Your task to perform on an android device: add a contact Image 0: 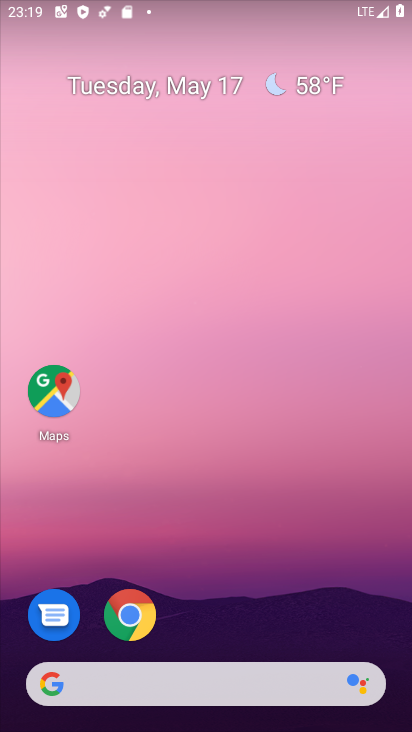
Step 0: drag from (210, 637) to (203, 234)
Your task to perform on an android device: add a contact Image 1: 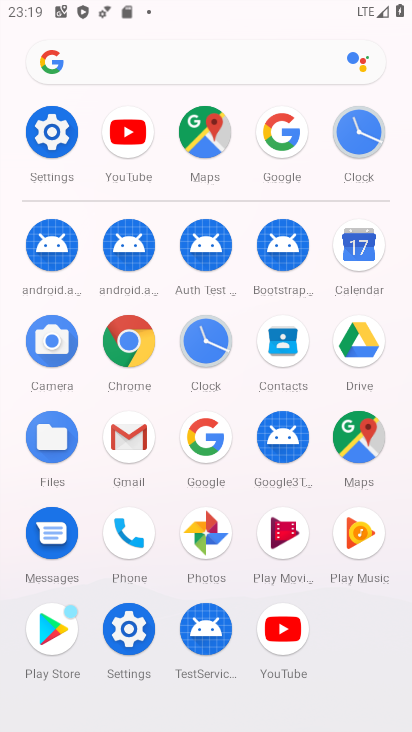
Step 1: click (278, 343)
Your task to perform on an android device: add a contact Image 2: 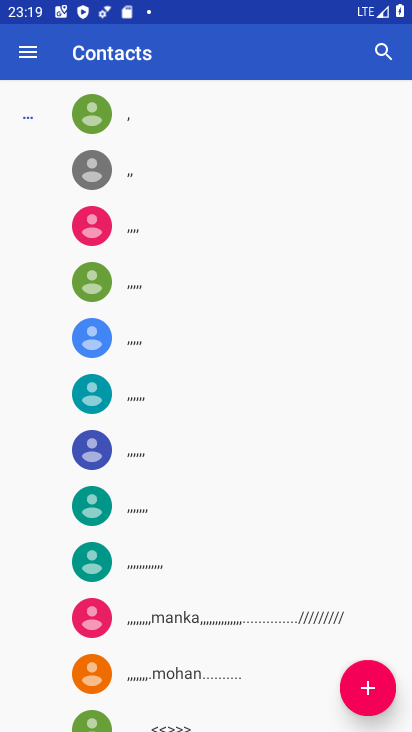
Step 2: click (362, 674)
Your task to perform on an android device: add a contact Image 3: 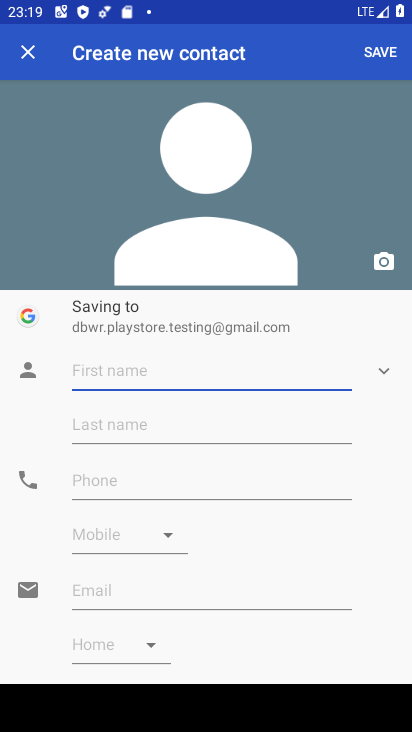
Step 3: type "hf,jhj"
Your task to perform on an android device: add a contact Image 4: 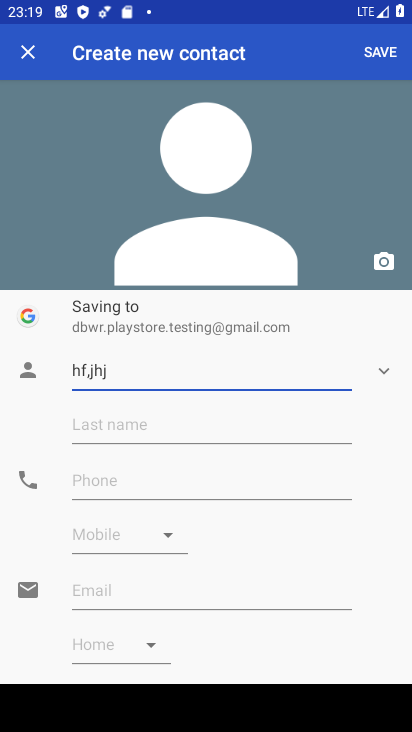
Step 4: click (159, 479)
Your task to perform on an android device: add a contact Image 5: 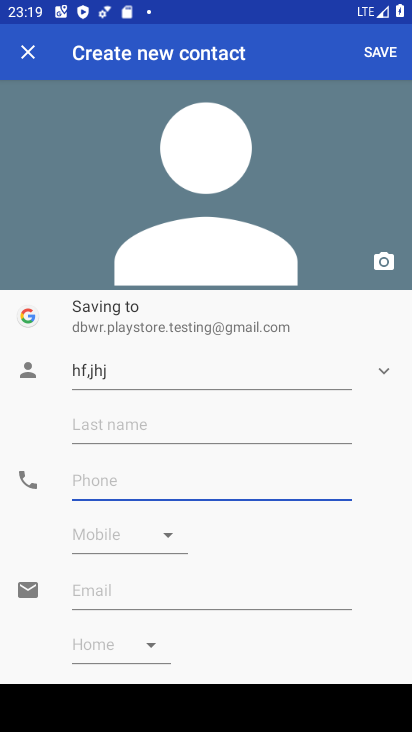
Step 5: type "98759467"
Your task to perform on an android device: add a contact Image 6: 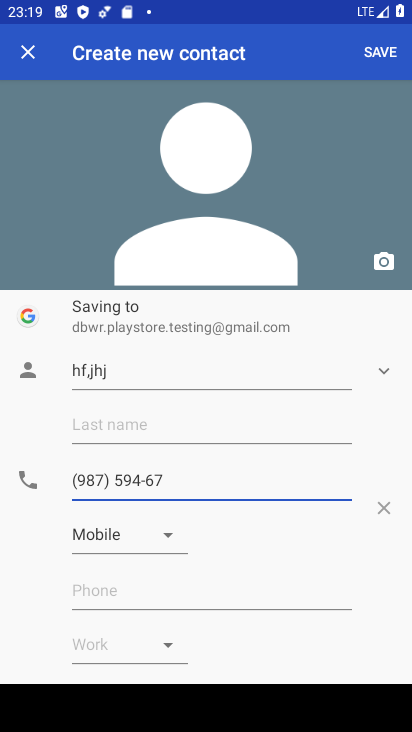
Step 6: click (384, 52)
Your task to perform on an android device: add a contact Image 7: 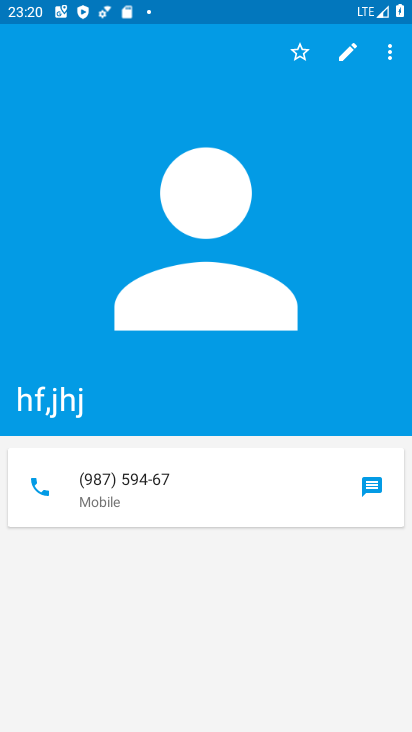
Step 7: task complete